Your task to perform on an android device: delete browsing data in the chrome app Image 0: 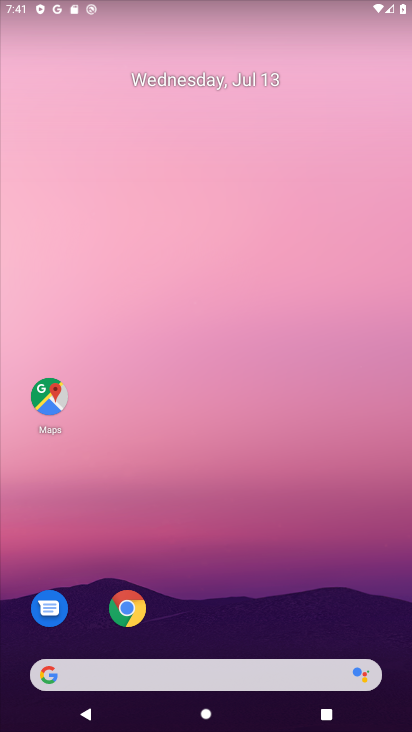
Step 0: drag from (275, 706) to (118, 129)
Your task to perform on an android device: delete browsing data in the chrome app Image 1: 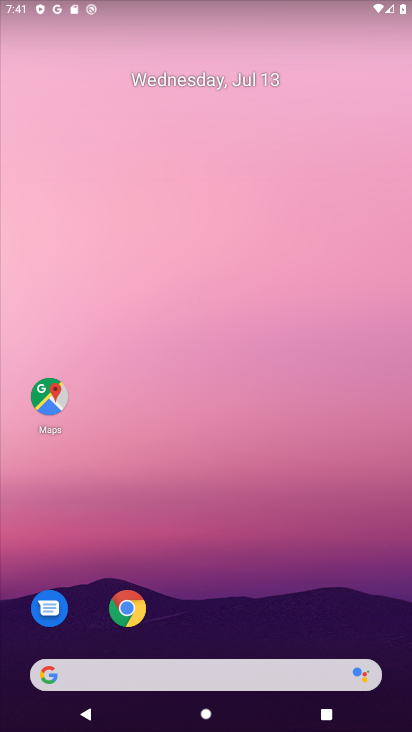
Step 1: drag from (253, 680) to (223, 240)
Your task to perform on an android device: delete browsing data in the chrome app Image 2: 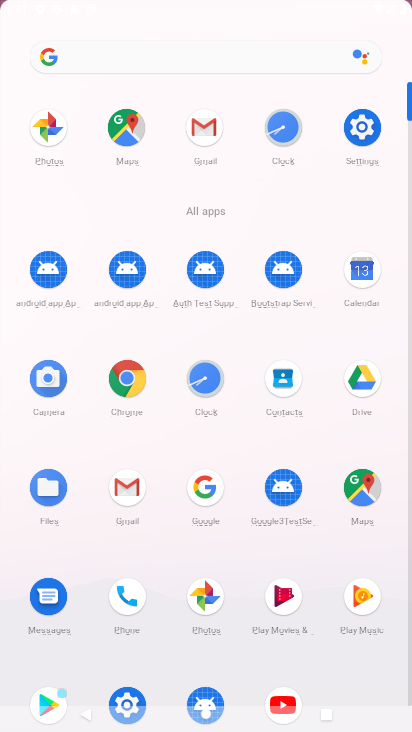
Step 2: drag from (238, 371) to (161, 18)
Your task to perform on an android device: delete browsing data in the chrome app Image 3: 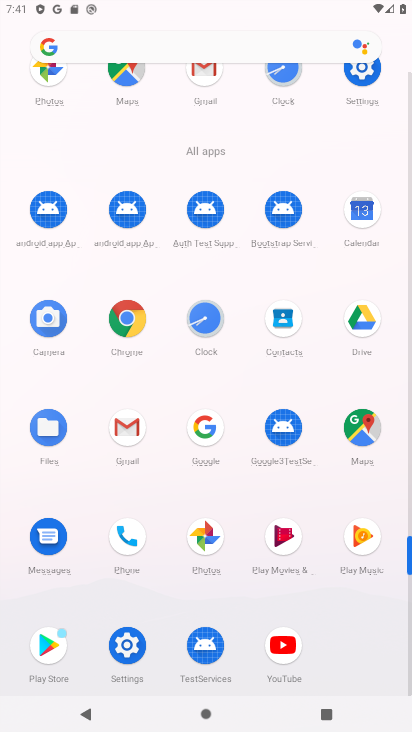
Step 3: drag from (298, 538) to (250, 181)
Your task to perform on an android device: delete browsing data in the chrome app Image 4: 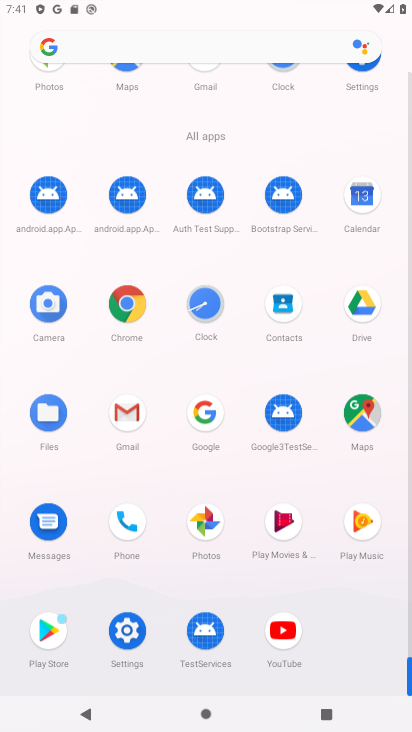
Step 4: drag from (301, 489) to (232, 154)
Your task to perform on an android device: delete browsing data in the chrome app Image 5: 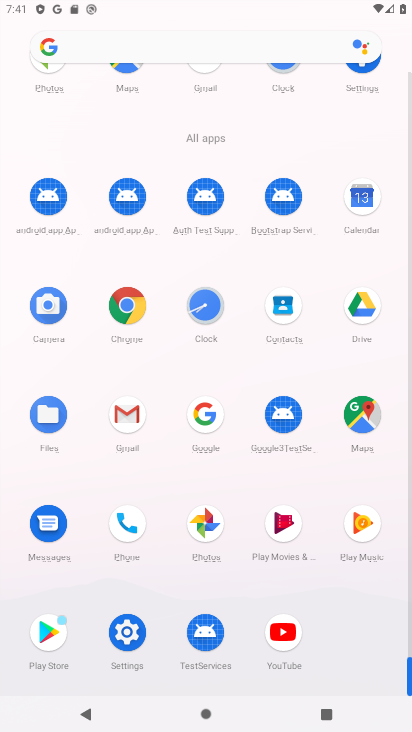
Step 5: click (125, 302)
Your task to perform on an android device: delete browsing data in the chrome app Image 6: 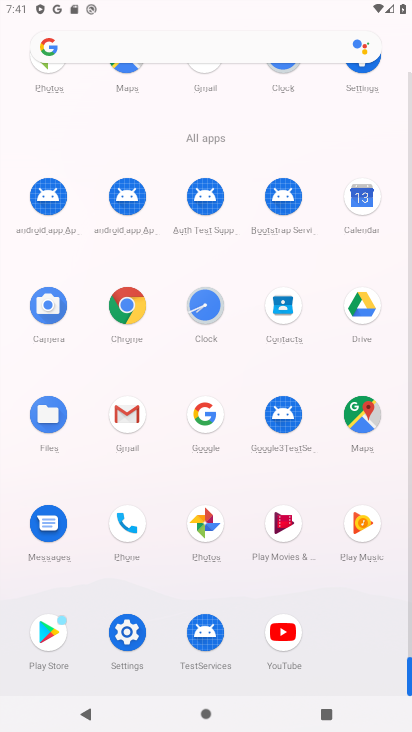
Step 6: click (125, 302)
Your task to perform on an android device: delete browsing data in the chrome app Image 7: 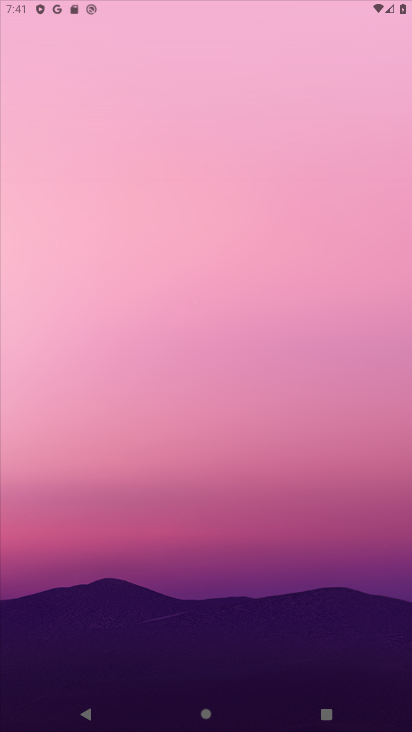
Step 7: click (131, 312)
Your task to perform on an android device: delete browsing data in the chrome app Image 8: 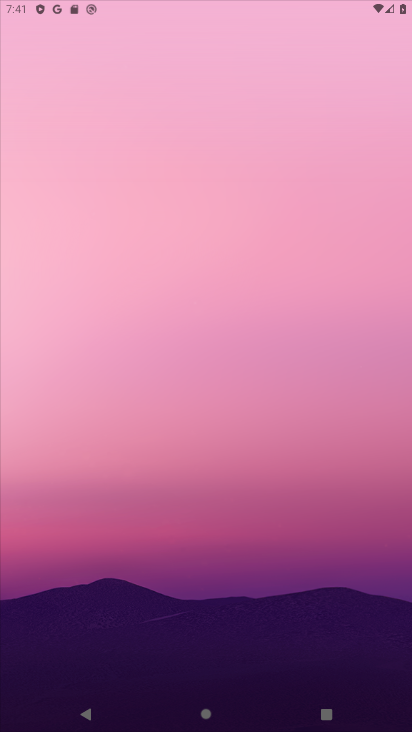
Step 8: click (128, 312)
Your task to perform on an android device: delete browsing data in the chrome app Image 9: 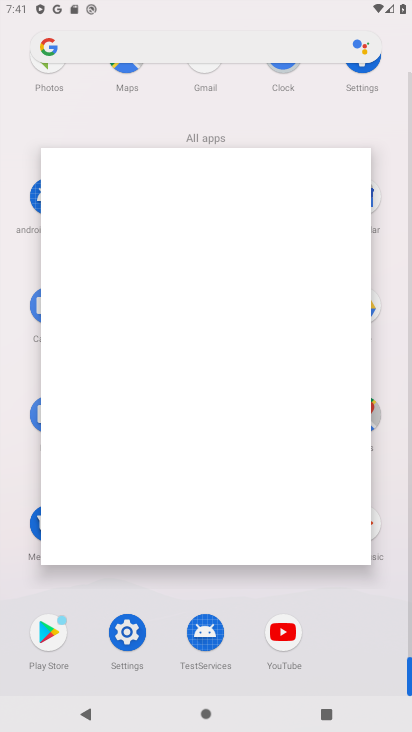
Step 9: click (128, 312)
Your task to perform on an android device: delete browsing data in the chrome app Image 10: 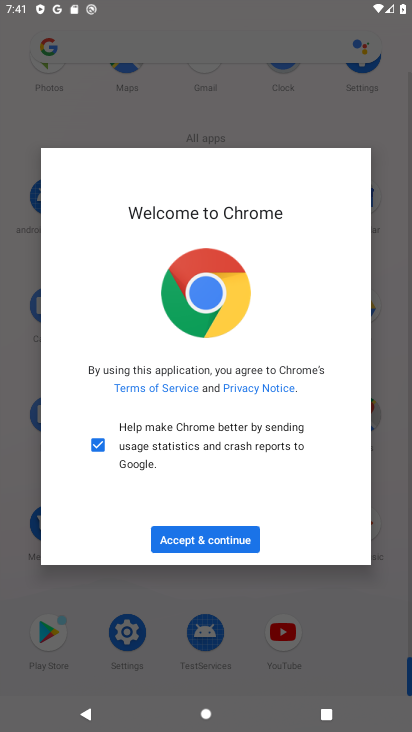
Step 10: click (206, 538)
Your task to perform on an android device: delete browsing data in the chrome app Image 11: 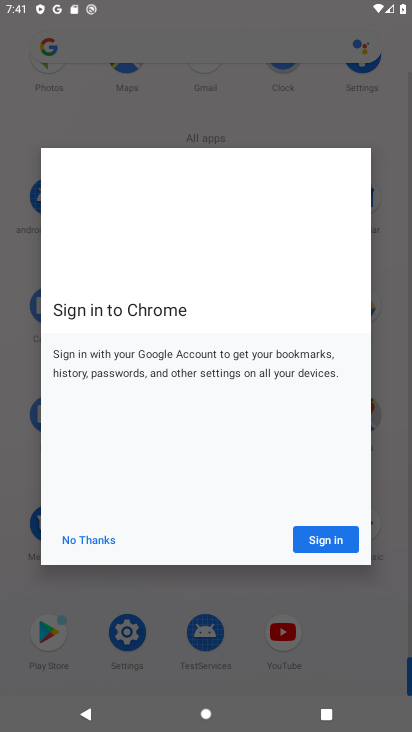
Step 11: click (215, 540)
Your task to perform on an android device: delete browsing data in the chrome app Image 12: 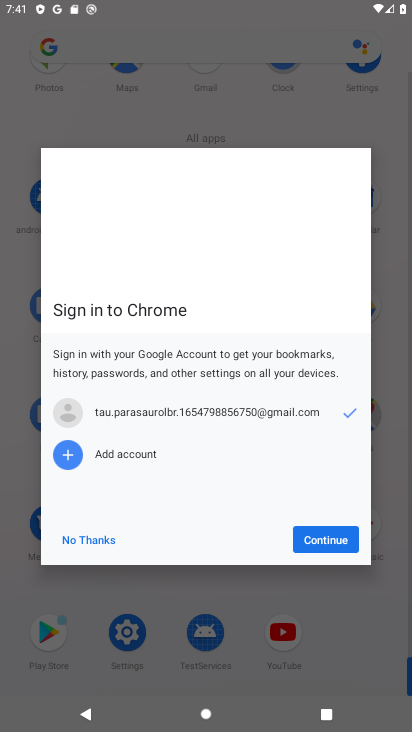
Step 12: click (215, 545)
Your task to perform on an android device: delete browsing data in the chrome app Image 13: 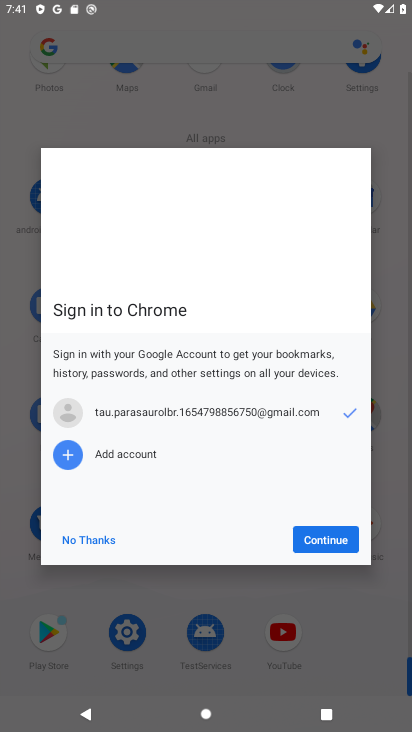
Step 13: click (302, 545)
Your task to perform on an android device: delete browsing data in the chrome app Image 14: 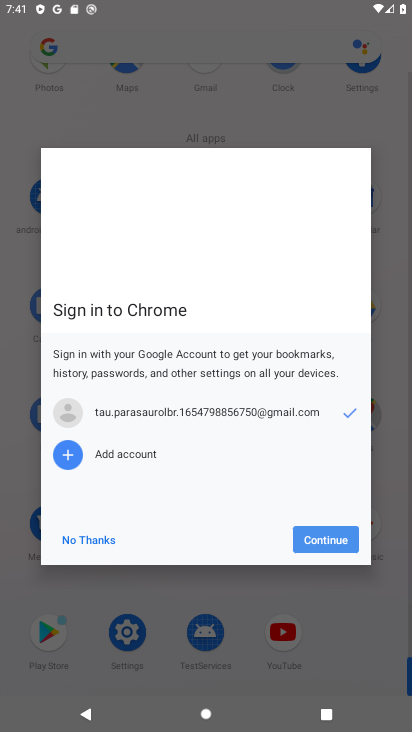
Step 14: click (315, 544)
Your task to perform on an android device: delete browsing data in the chrome app Image 15: 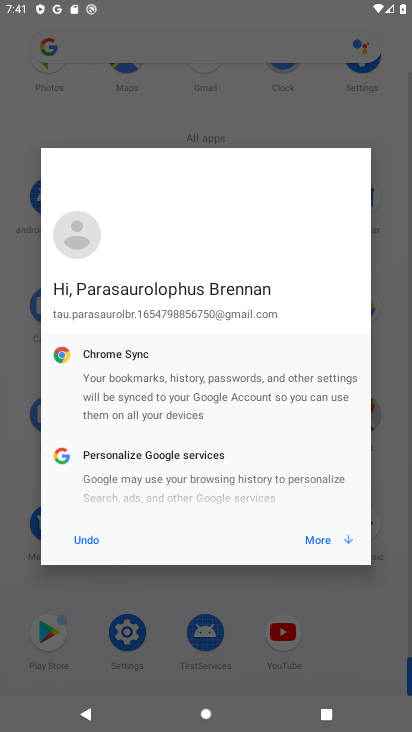
Step 15: click (328, 538)
Your task to perform on an android device: delete browsing data in the chrome app Image 16: 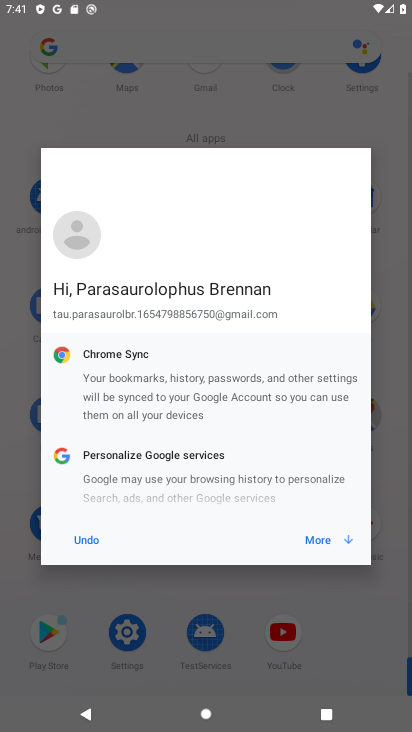
Step 16: click (328, 538)
Your task to perform on an android device: delete browsing data in the chrome app Image 17: 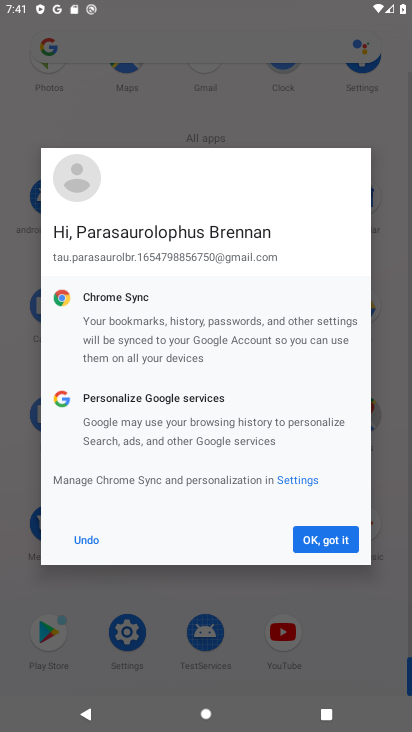
Step 17: click (327, 544)
Your task to perform on an android device: delete browsing data in the chrome app Image 18: 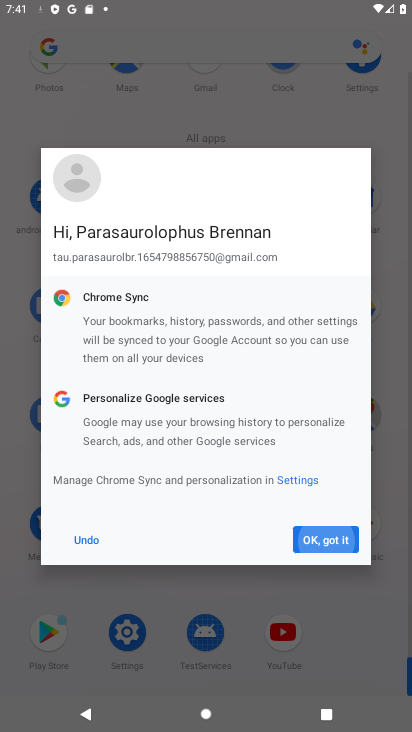
Step 18: click (327, 537)
Your task to perform on an android device: delete browsing data in the chrome app Image 19: 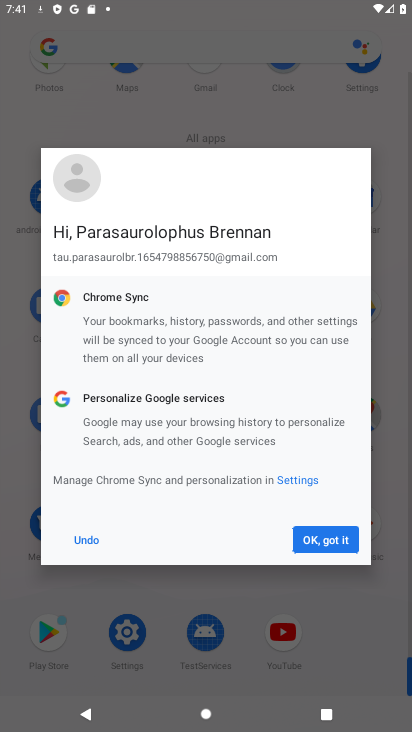
Step 19: click (327, 537)
Your task to perform on an android device: delete browsing data in the chrome app Image 20: 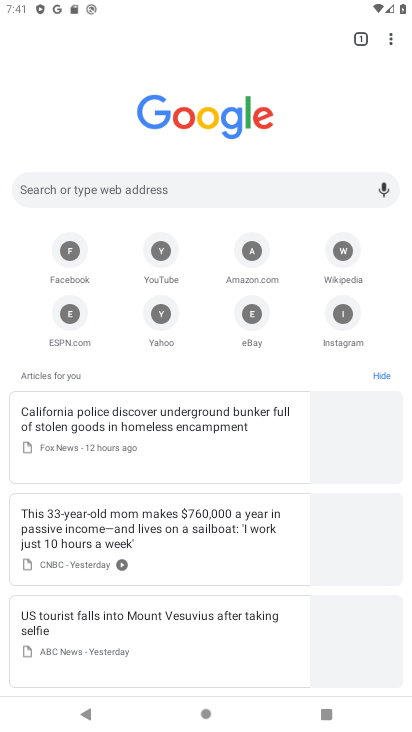
Step 20: drag from (386, 44) to (248, 218)
Your task to perform on an android device: delete browsing data in the chrome app Image 21: 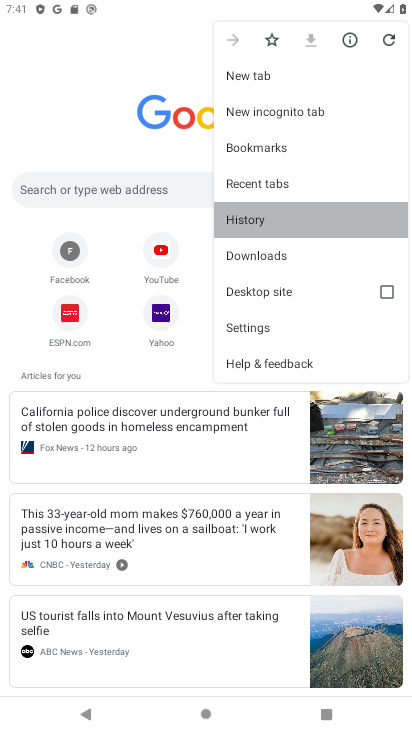
Step 21: click (248, 218)
Your task to perform on an android device: delete browsing data in the chrome app Image 22: 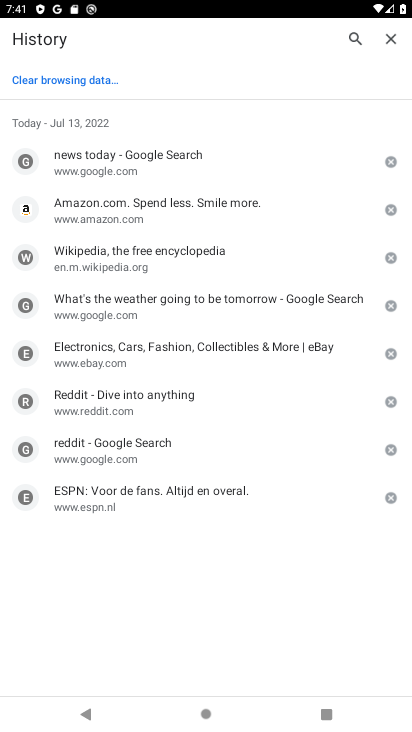
Step 22: click (41, 76)
Your task to perform on an android device: delete browsing data in the chrome app Image 23: 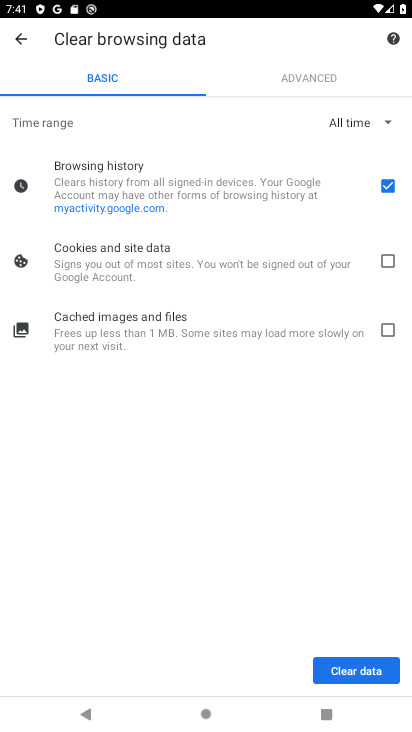
Step 23: click (340, 663)
Your task to perform on an android device: delete browsing data in the chrome app Image 24: 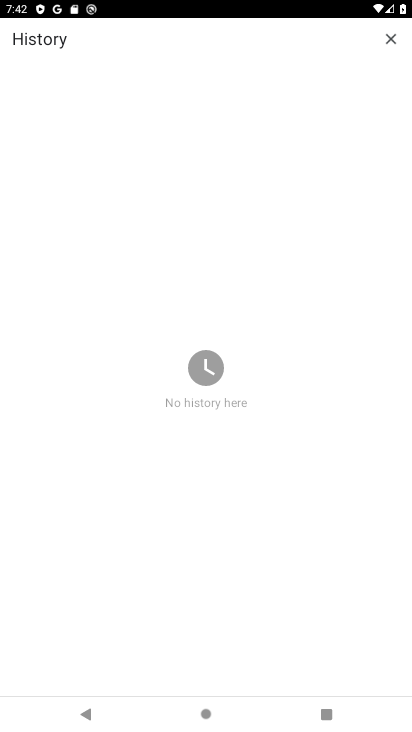
Step 24: task complete